Your task to perform on an android device: Go to Maps Image 0: 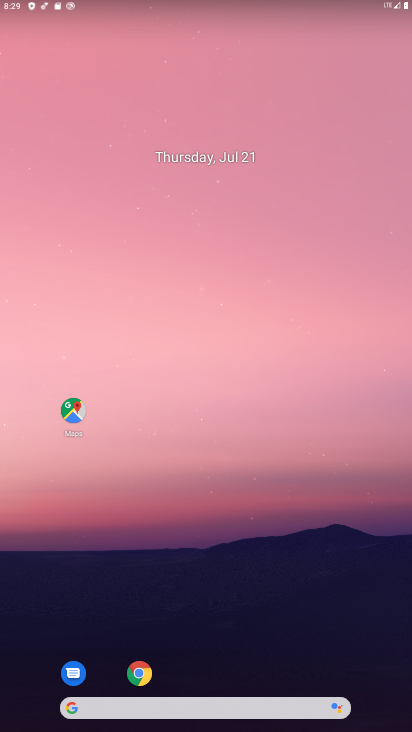
Step 0: click (64, 407)
Your task to perform on an android device: Go to Maps Image 1: 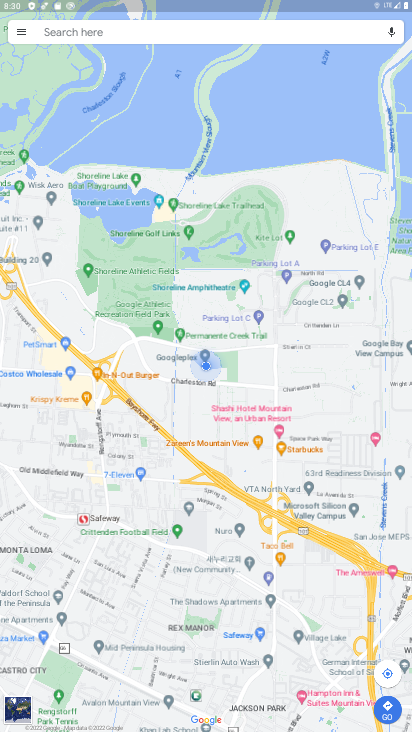
Step 1: task complete